Your task to perform on an android device: Open Youtube and go to the subscriptions tab Image 0: 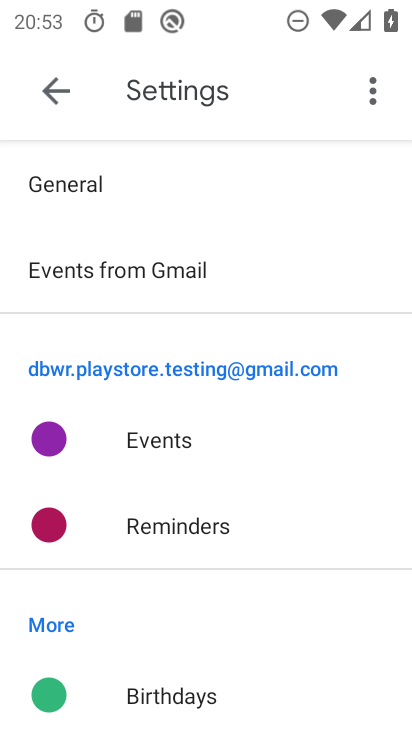
Step 0: press home button
Your task to perform on an android device: Open Youtube and go to the subscriptions tab Image 1: 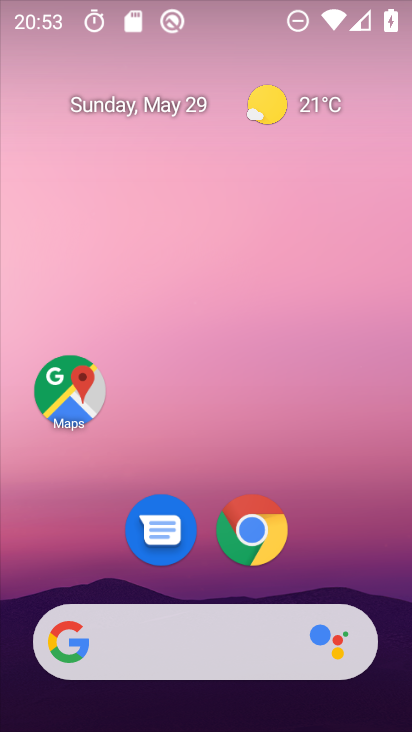
Step 1: drag from (253, 692) to (296, 302)
Your task to perform on an android device: Open Youtube and go to the subscriptions tab Image 2: 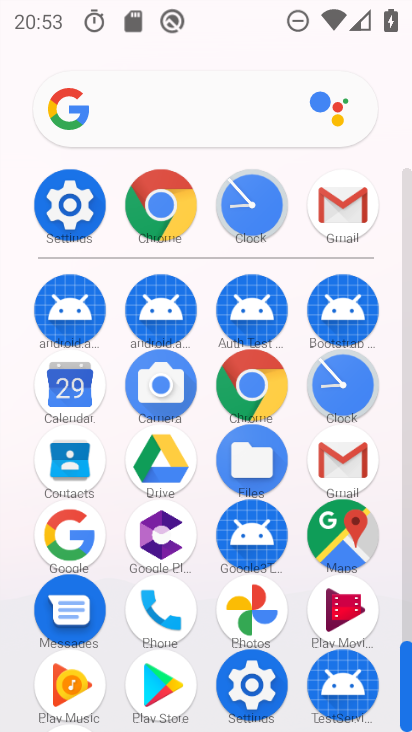
Step 2: drag from (194, 651) to (248, 386)
Your task to perform on an android device: Open Youtube and go to the subscriptions tab Image 3: 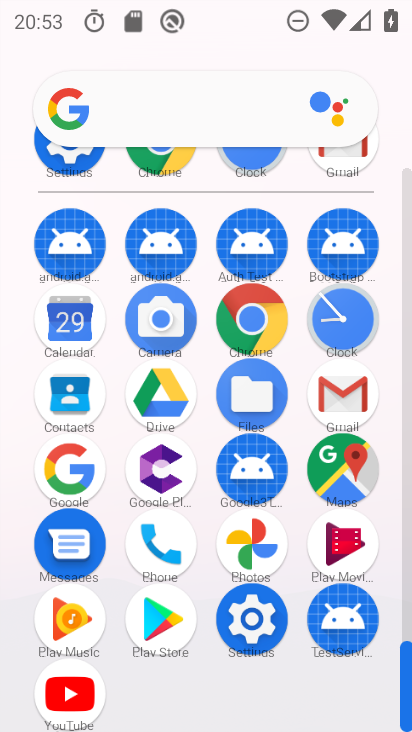
Step 3: click (71, 695)
Your task to perform on an android device: Open Youtube and go to the subscriptions tab Image 4: 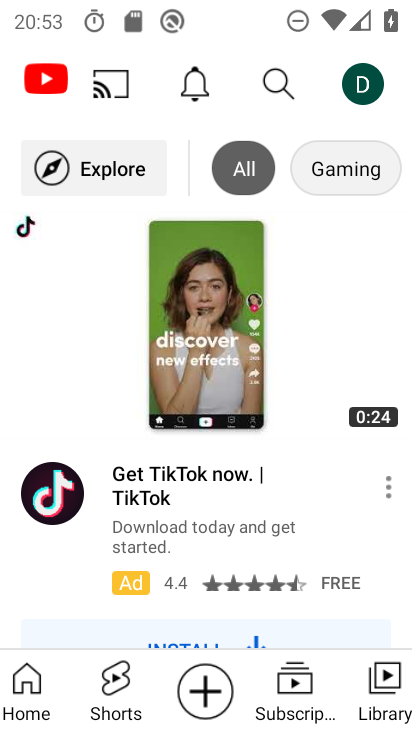
Step 4: click (281, 727)
Your task to perform on an android device: Open Youtube and go to the subscriptions tab Image 5: 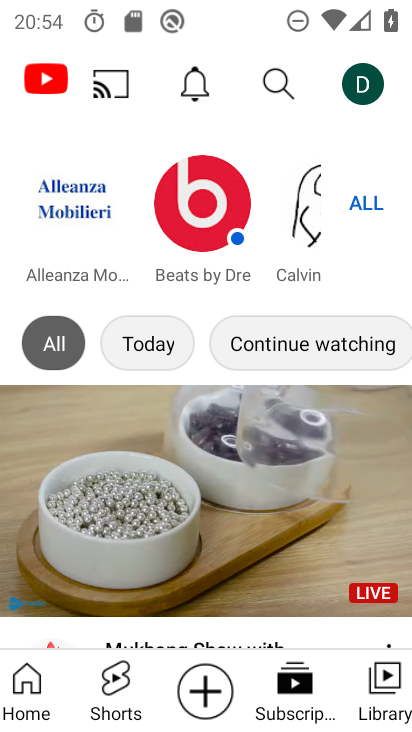
Step 5: task complete